Your task to perform on an android device: manage bookmarks in the chrome app Image 0: 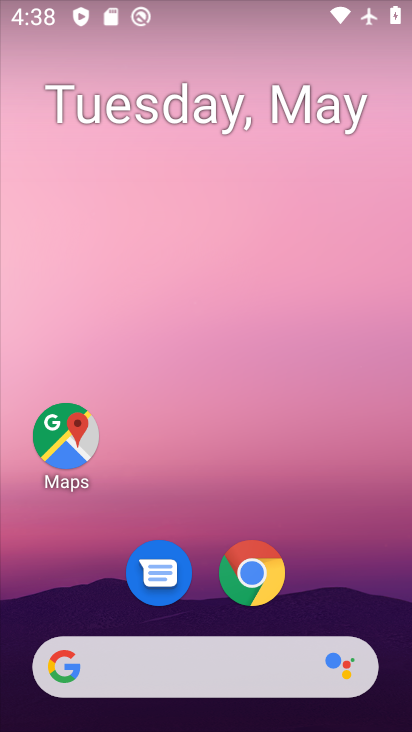
Step 0: click (247, 568)
Your task to perform on an android device: manage bookmarks in the chrome app Image 1: 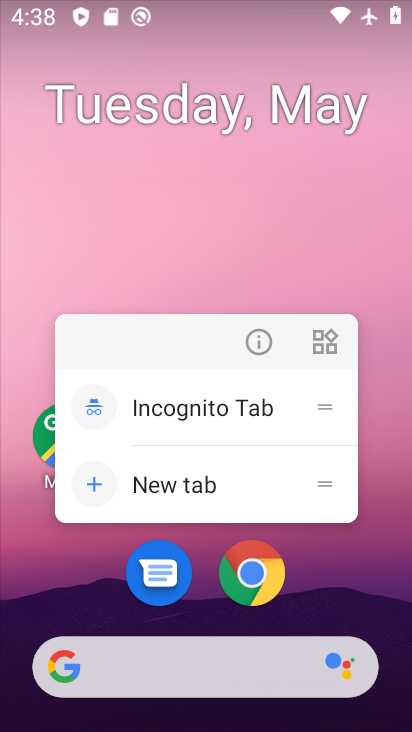
Step 1: click (249, 569)
Your task to perform on an android device: manage bookmarks in the chrome app Image 2: 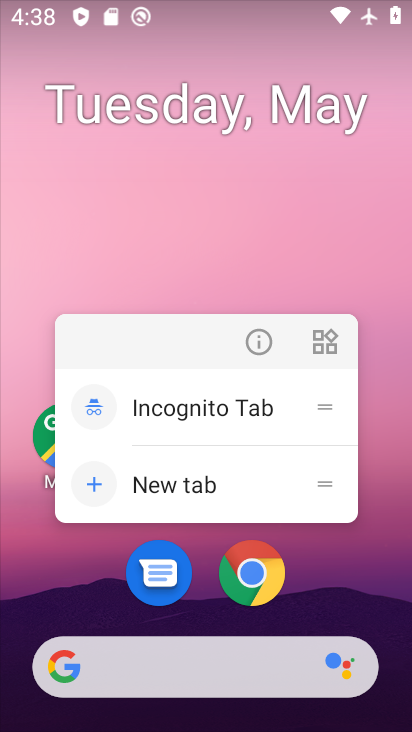
Step 2: click (248, 570)
Your task to perform on an android device: manage bookmarks in the chrome app Image 3: 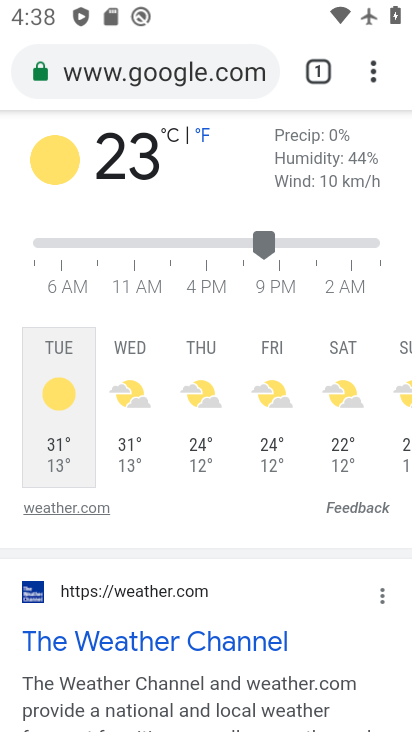
Step 3: drag from (376, 68) to (182, 281)
Your task to perform on an android device: manage bookmarks in the chrome app Image 4: 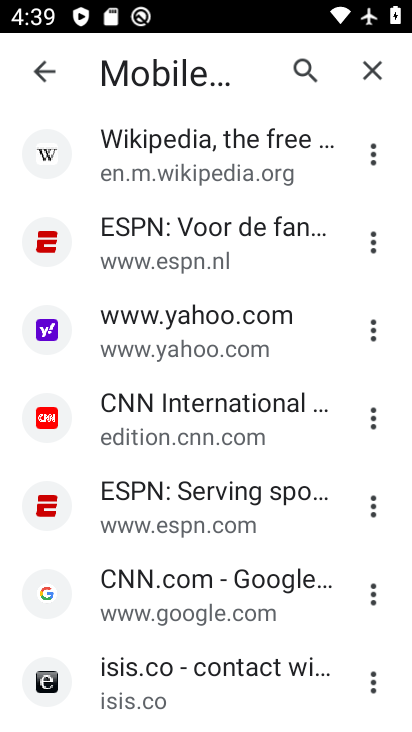
Step 4: click (369, 233)
Your task to perform on an android device: manage bookmarks in the chrome app Image 5: 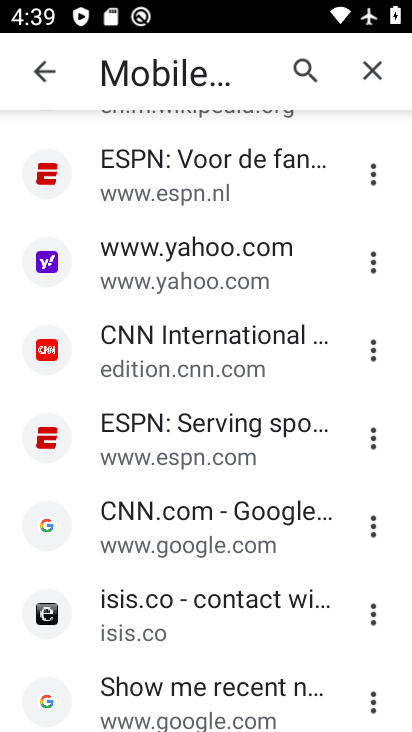
Step 5: click (370, 180)
Your task to perform on an android device: manage bookmarks in the chrome app Image 6: 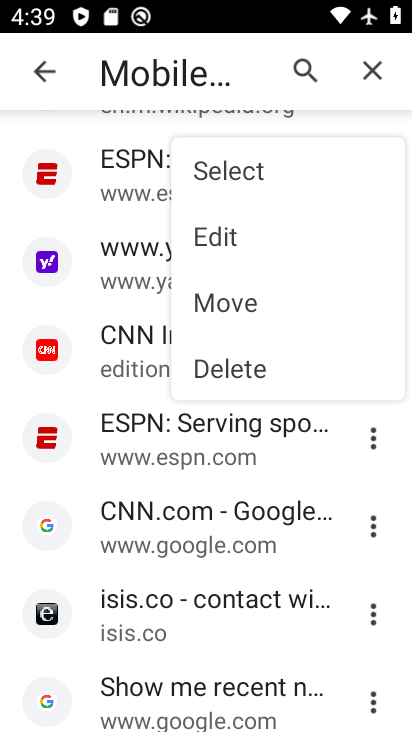
Step 6: click (233, 372)
Your task to perform on an android device: manage bookmarks in the chrome app Image 7: 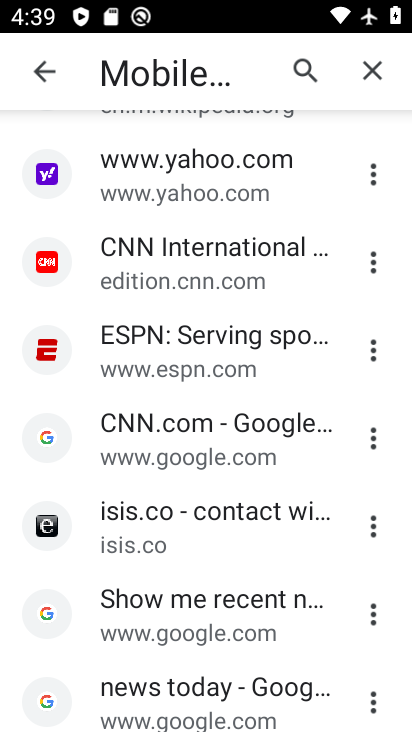
Step 7: task complete